Your task to perform on an android device: turn on translation in the chrome app Image 0: 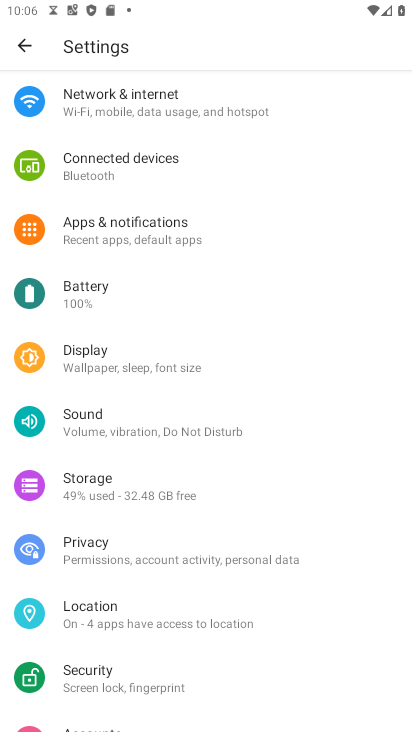
Step 0: press home button
Your task to perform on an android device: turn on translation in the chrome app Image 1: 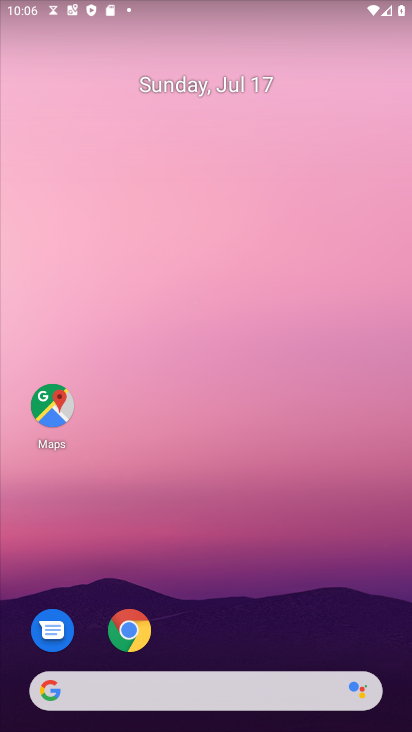
Step 1: drag from (163, 672) to (155, 0)
Your task to perform on an android device: turn on translation in the chrome app Image 2: 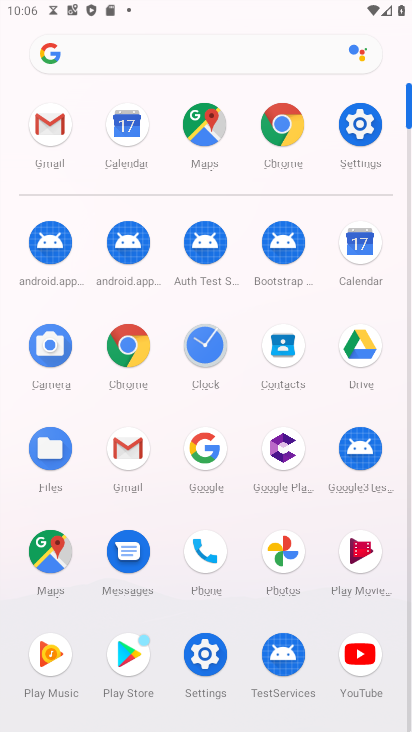
Step 2: click (138, 349)
Your task to perform on an android device: turn on translation in the chrome app Image 3: 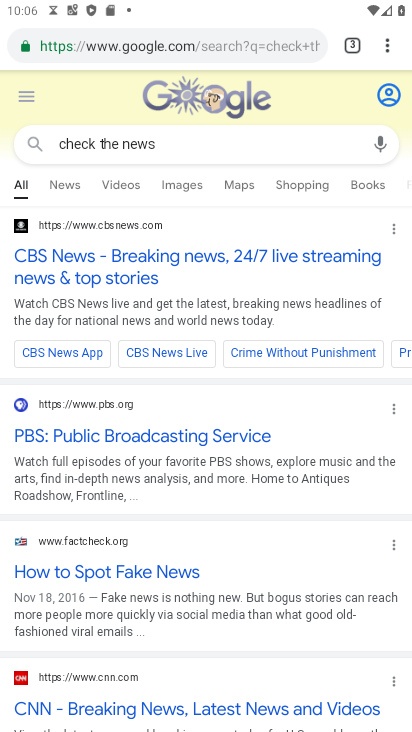
Step 3: drag from (411, 58) to (277, 505)
Your task to perform on an android device: turn on translation in the chrome app Image 4: 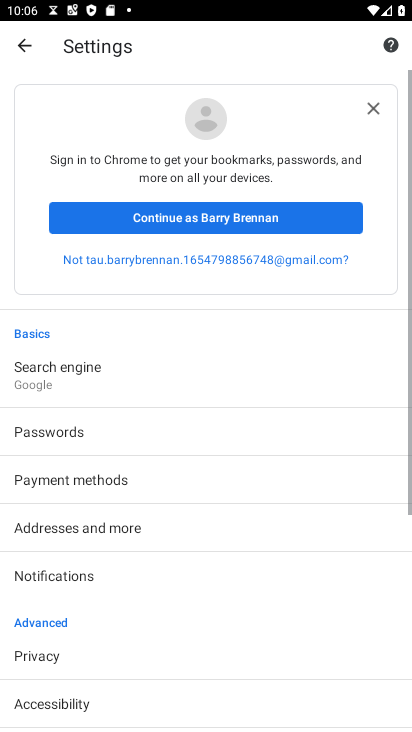
Step 4: drag from (152, 660) to (217, 210)
Your task to perform on an android device: turn on translation in the chrome app Image 5: 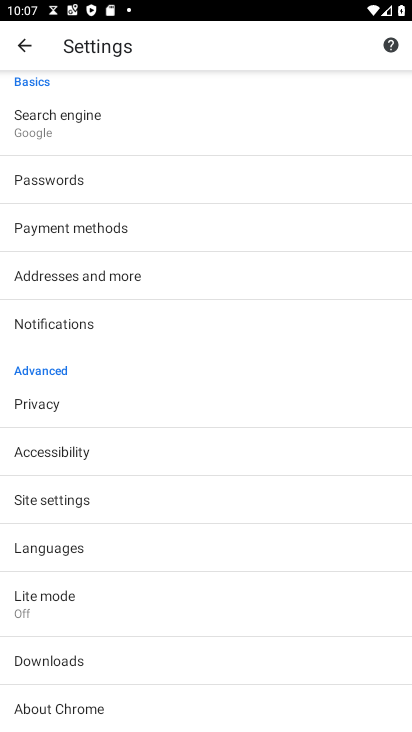
Step 5: click (90, 549)
Your task to perform on an android device: turn on translation in the chrome app Image 6: 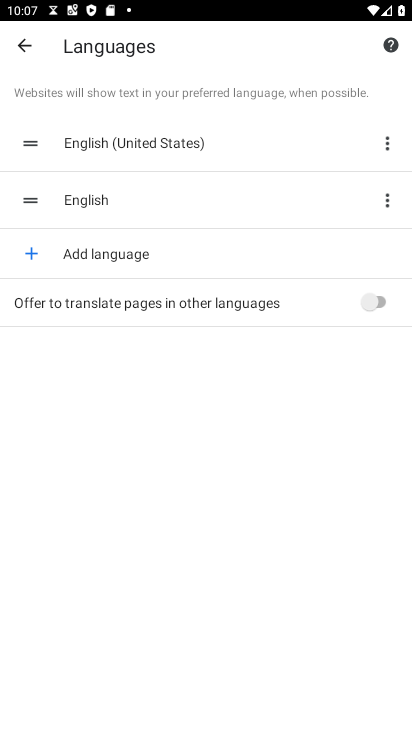
Step 6: click (375, 299)
Your task to perform on an android device: turn on translation in the chrome app Image 7: 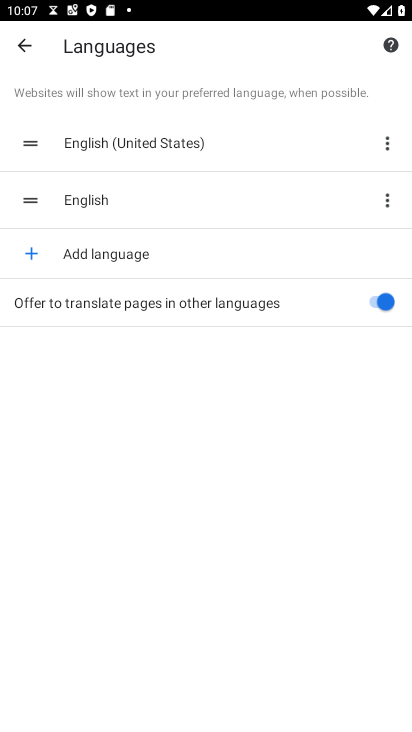
Step 7: task complete